Your task to perform on an android device: add a label to a message in the gmail app Image 0: 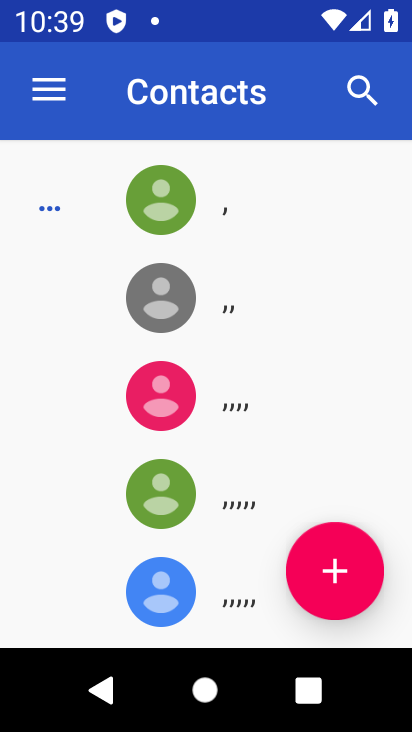
Step 0: press home button
Your task to perform on an android device: add a label to a message in the gmail app Image 1: 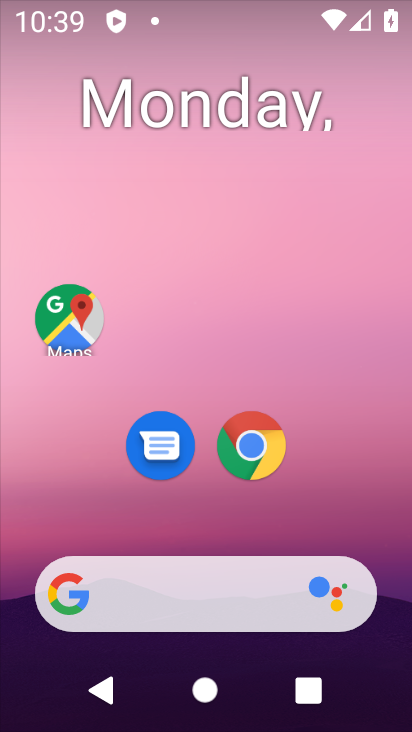
Step 1: drag from (205, 494) to (173, 71)
Your task to perform on an android device: add a label to a message in the gmail app Image 2: 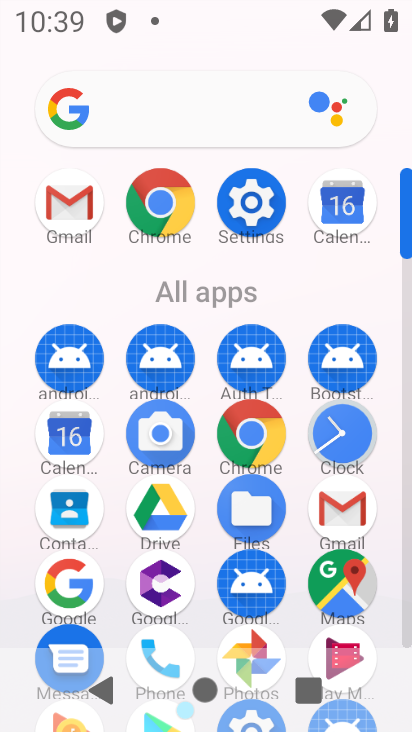
Step 2: click (333, 501)
Your task to perform on an android device: add a label to a message in the gmail app Image 3: 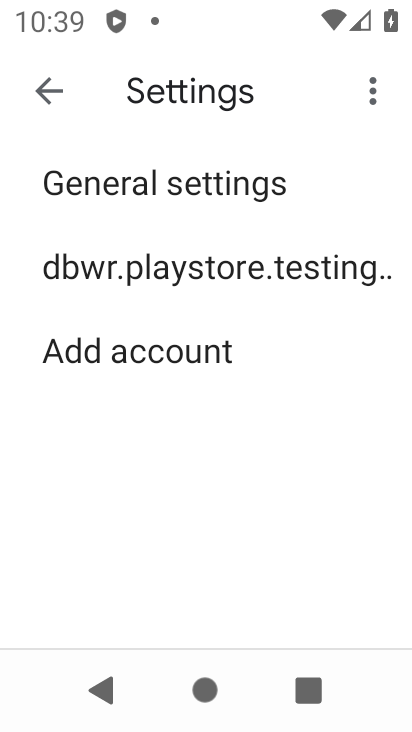
Step 3: click (51, 97)
Your task to perform on an android device: add a label to a message in the gmail app Image 4: 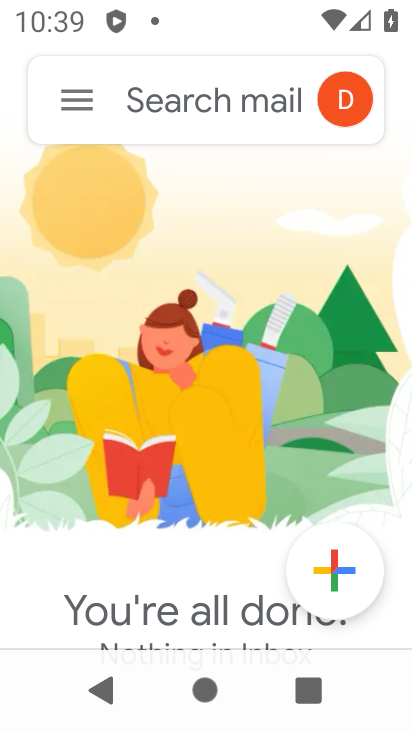
Step 4: click (76, 94)
Your task to perform on an android device: add a label to a message in the gmail app Image 5: 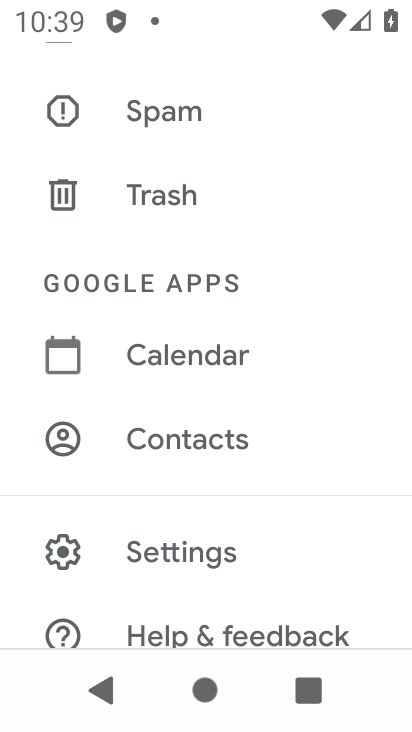
Step 5: task complete